Your task to perform on an android device: Open location settings Image 0: 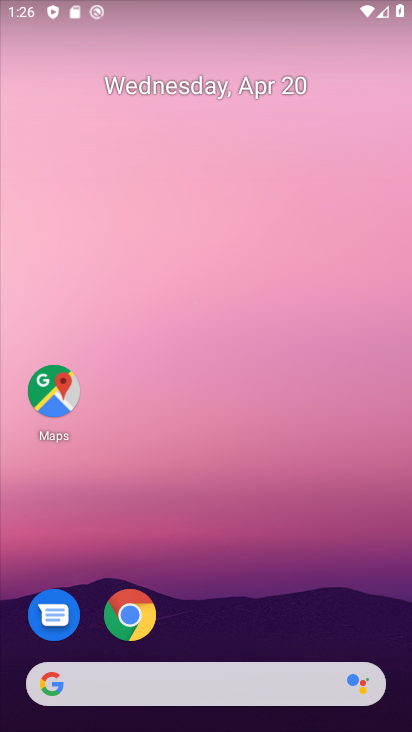
Step 0: drag from (276, 576) to (292, 54)
Your task to perform on an android device: Open location settings Image 1: 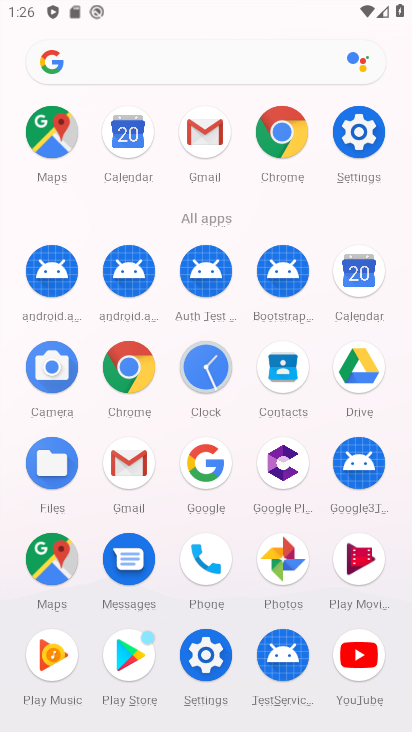
Step 1: click (359, 149)
Your task to perform on an android device: Open location settings Image 2: 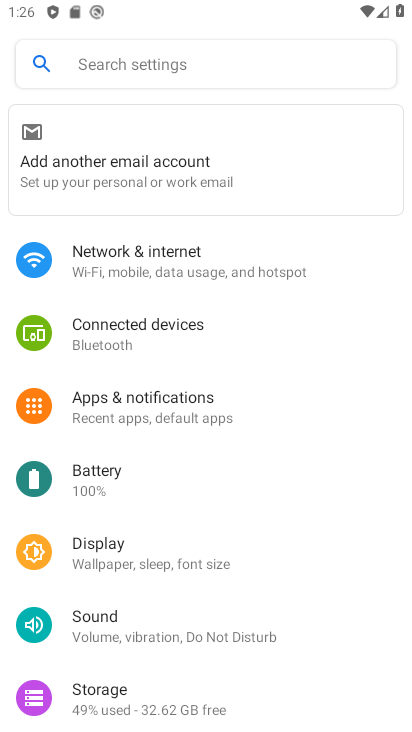
Step 2: drag from (143, 615) to (189, 534)
Your task to perform on an android device: Open location settings Image 3: 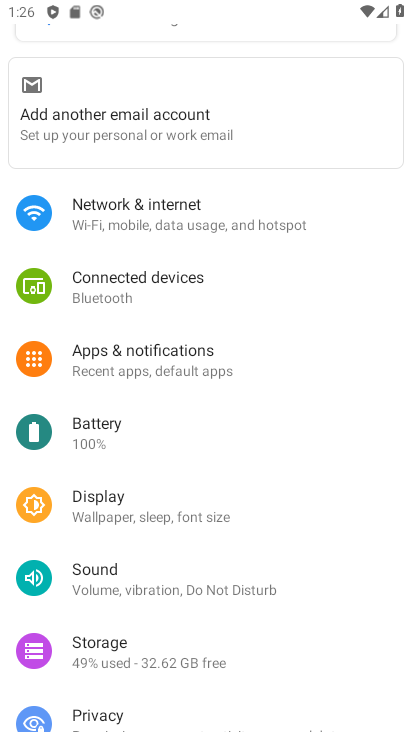
Step 3: drag from (193, 601) to (217, 545)
Your task to perform on an android device: Open location settings Image 4: 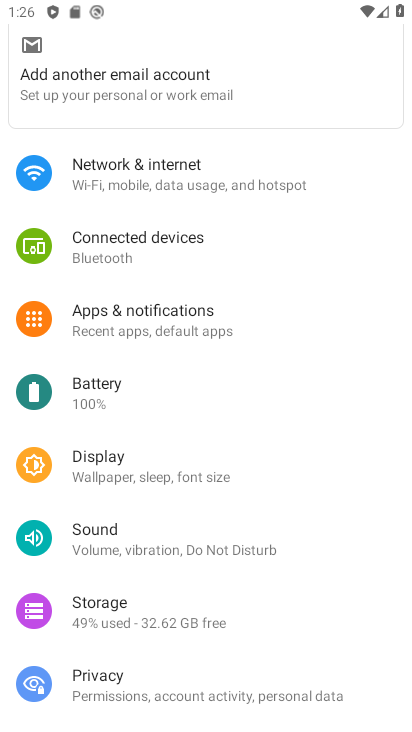
Step 4: drag from (235, 620) to (242, 533)
Your task to perform on an android device: Open location settings Image 5: 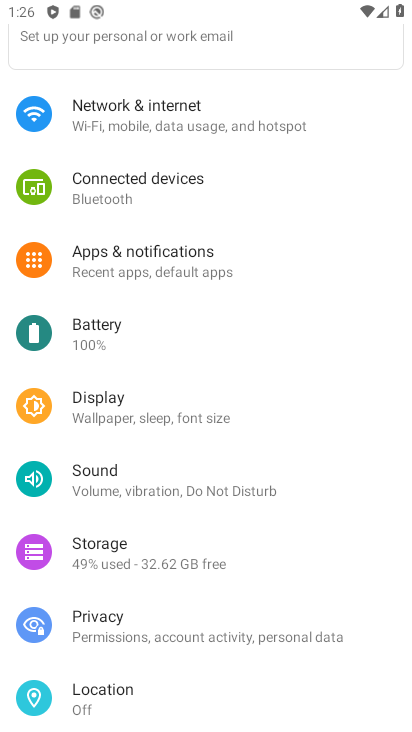
Step 5: drag from (223, 597) to (252, 518)
Your task to perform on an android device: Open location settings Image 6: 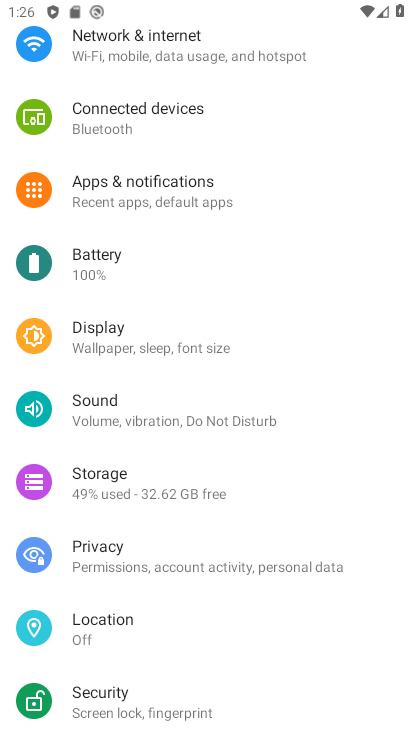
Step 6: drag from (255, 588) to (266, 513)
Your task to perform on an android device: Open location settings Image 7: 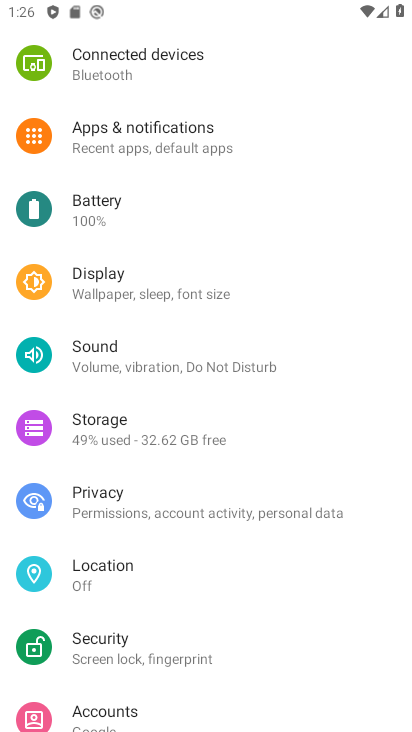
Step 7: click (191, 578)
Your task to perform on an android device: Open location settings Image 8: 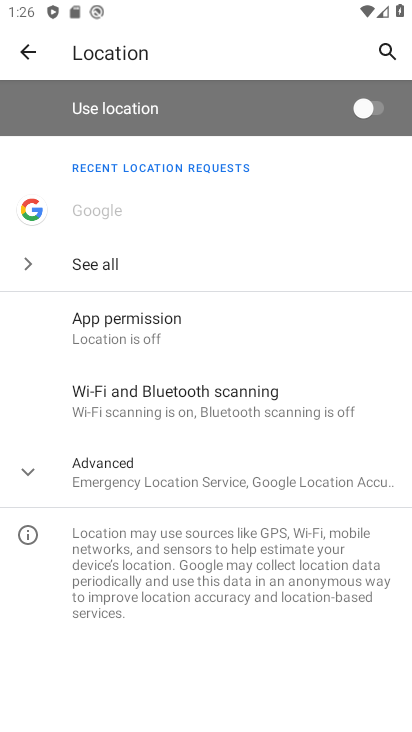
Step 8: task complete